Your task to perform on an android device: Open wifi settings Image 0: 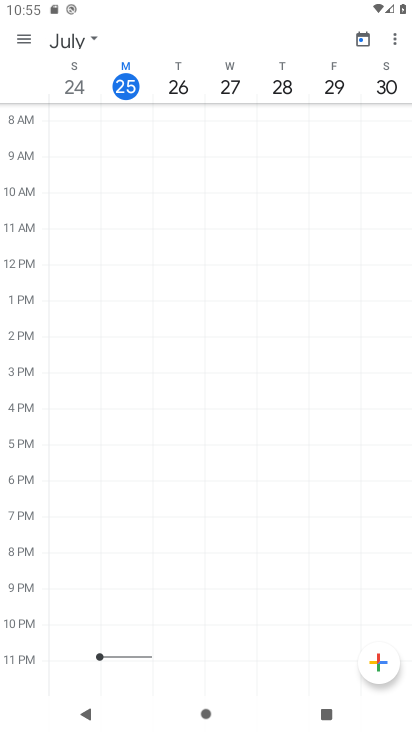
Step 0: press home button
Your task to perform on an android device: Open wifi settings Image 1: 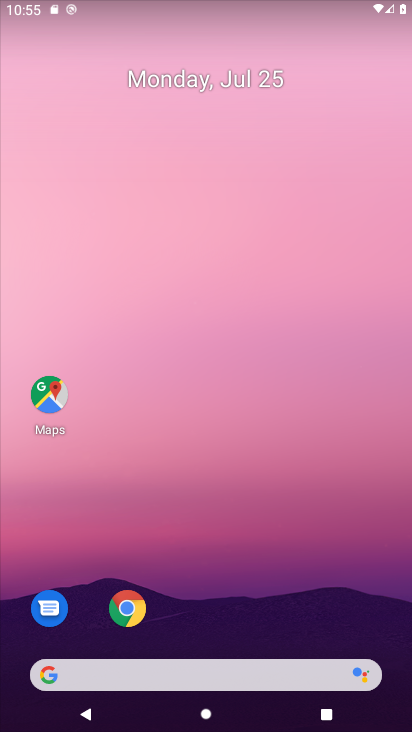
Step 1: drag from (187, 638) to (180, 254)
Your task to perform on an android device: Open wifi settings Image 2: 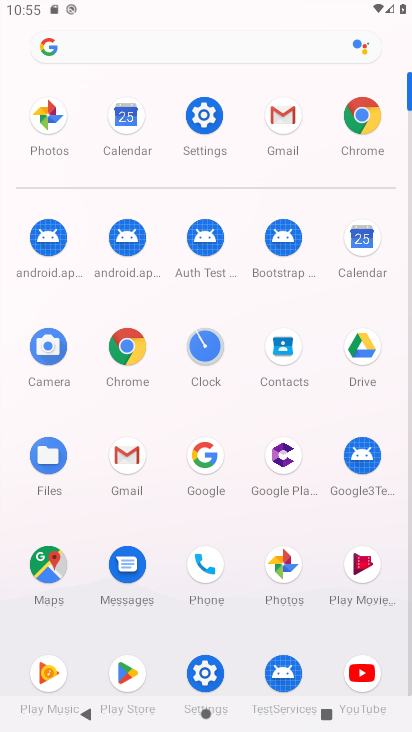
Step 2: click (190, 120)
Your task to perform on an android device: Open wifi settings Image 3: 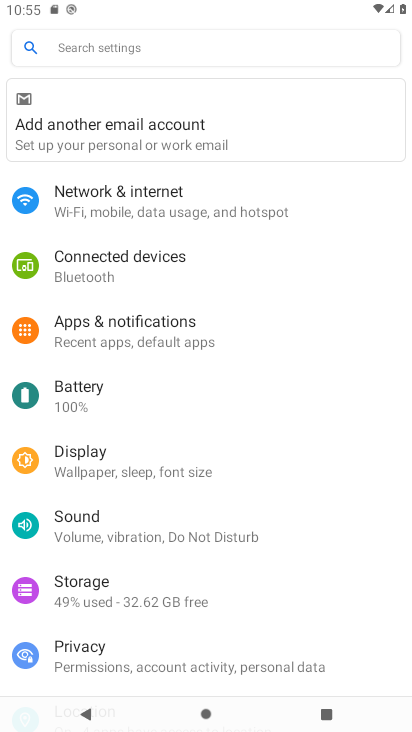
Step 3: click (167, 191)
Your task to perform on an android device: Open wifi settings Image 4: 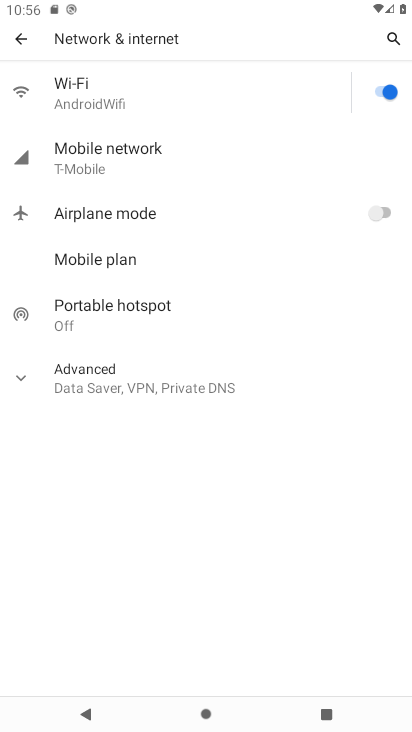
Step 4: task complete